Your task to perform on an android device: Open Google Chrome and click the shortcut for Amazon.com Image 0: 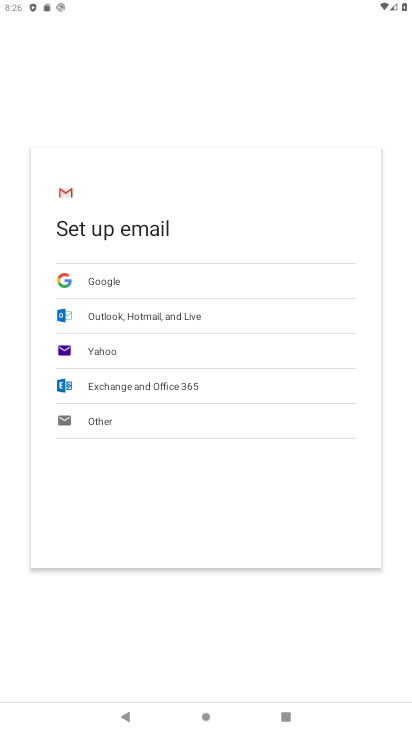
Step 0: press home button
Your task to perform on an android device: Open Google Chrome and click the shortcut for Amazon.com Image 1: 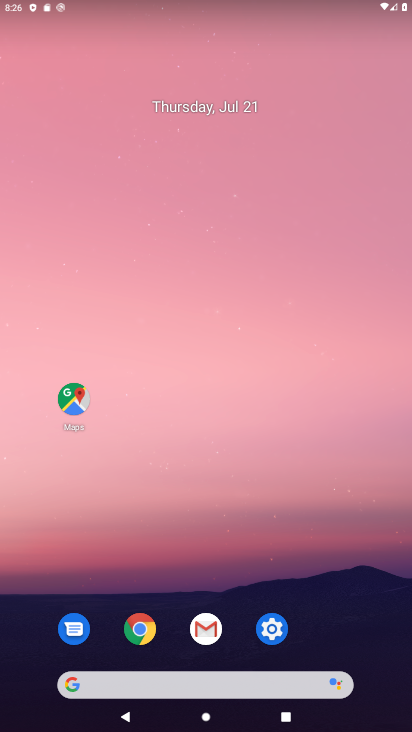
Step 1: click (140, 625)
Your task to perform on an android device: Open Google Chrome and click the shortcut for Amazon.com Image 2: 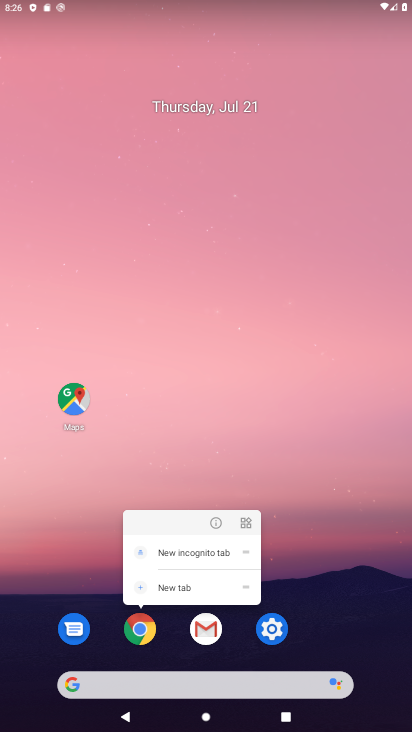
Step 2: click (140, 627)
Your task to perform on an android device: Open Google Chrome and click the shortcut for Amazon.com Image 3: 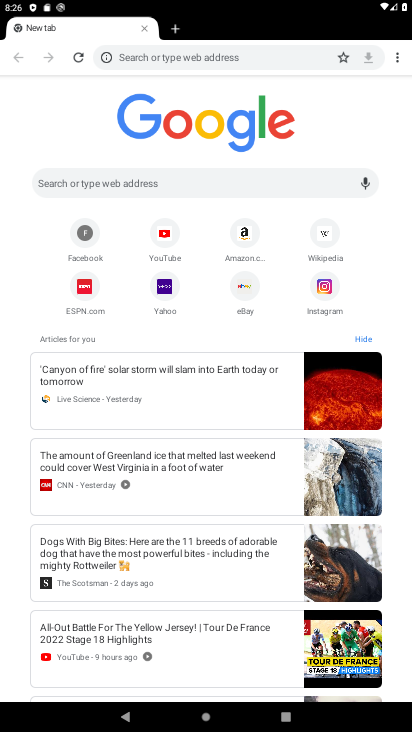
Step 3: click (240, 238)
Your task to perform on an android device: Open Google Chrome and click the shortcut for Amazon.com Image 4: 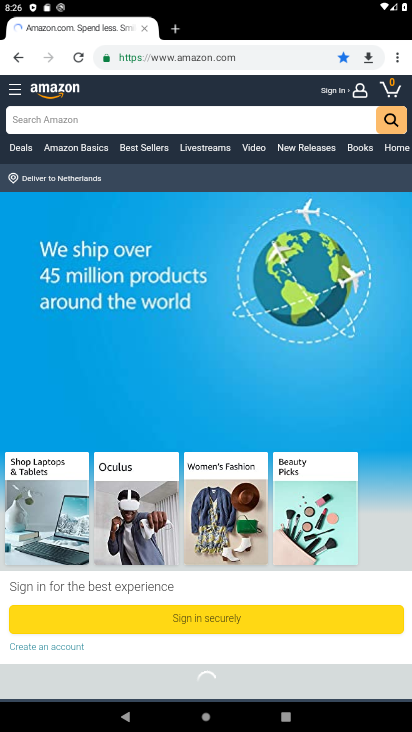
Step 4: click (396, 59)
Your task to perform on an android device: Open Google Chrome and click the shortcut for Amazon.com Image 5: 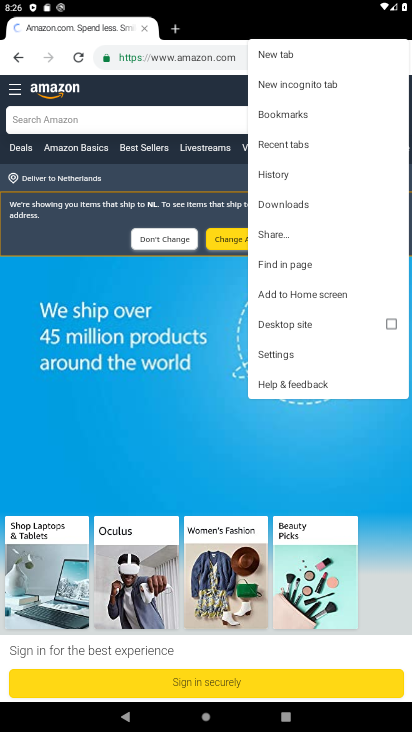
Step 5: click (294, 293)
Your task to perform on an android device: Open Google Chrome and click the shortcut for Amazon.com Image 6: 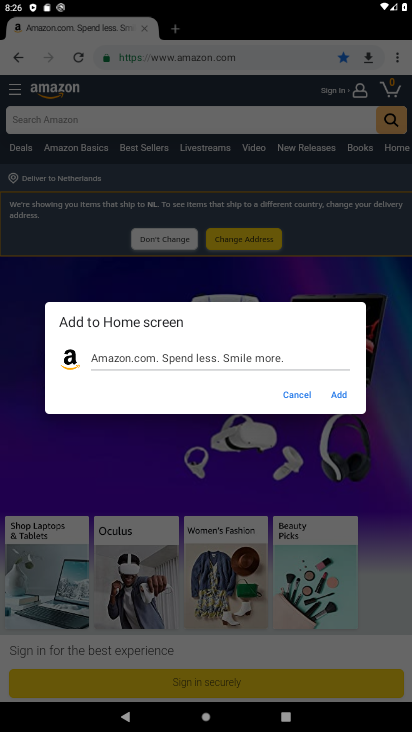
Step 6: click (330, 399)
Your task to perform on an android device: Open Google Chrome and click the shortcut for Amazon.com Image 7: 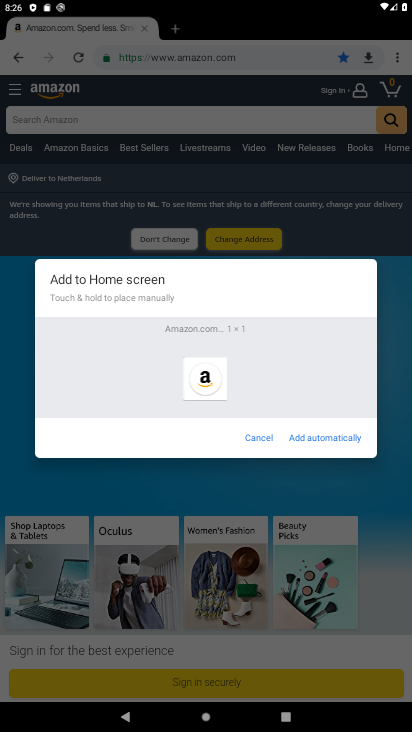
Step 7: click (334, 434)
Your task to perform on an android device: Open Google Chrome and click the shortcut for Amazon.com Image 8: 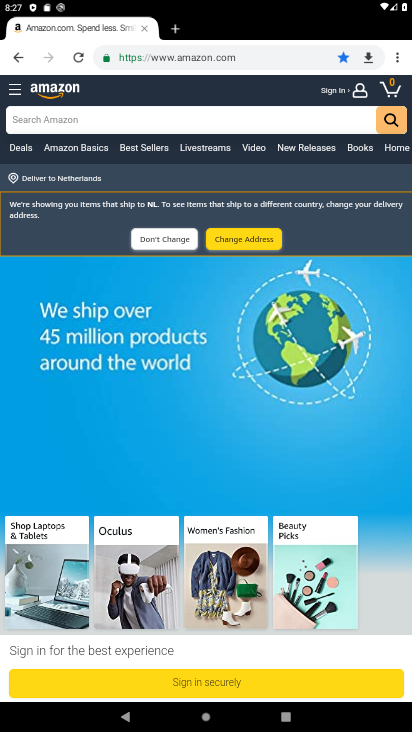
Step 8: task complete